Your task to perform on an android device: see tabs open on other devices in the chrome app Image 0: 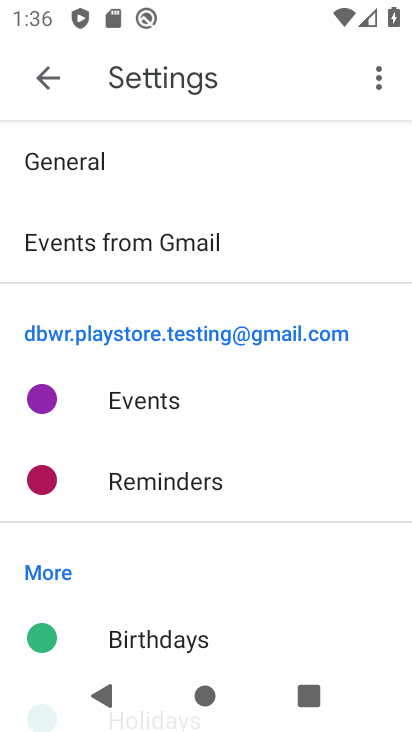
Step 0: press home button
Your task to perform on an android device: see tabs open on other devices in the chrome app Image 1: 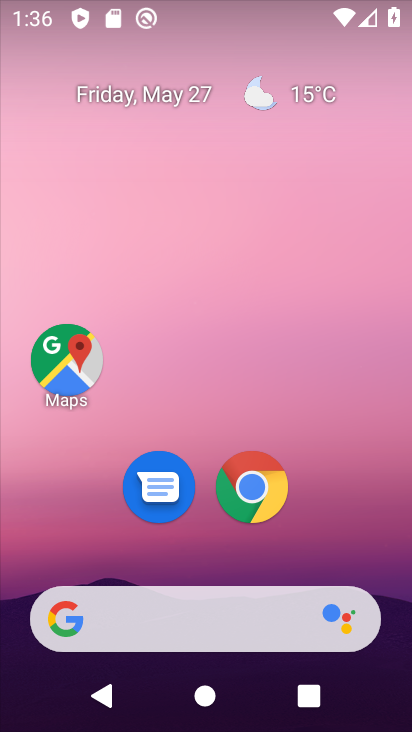
Step 1: click (261, 487)
Your task to perform on an android device: see tabs open on other devices in the chrome app Image 2: 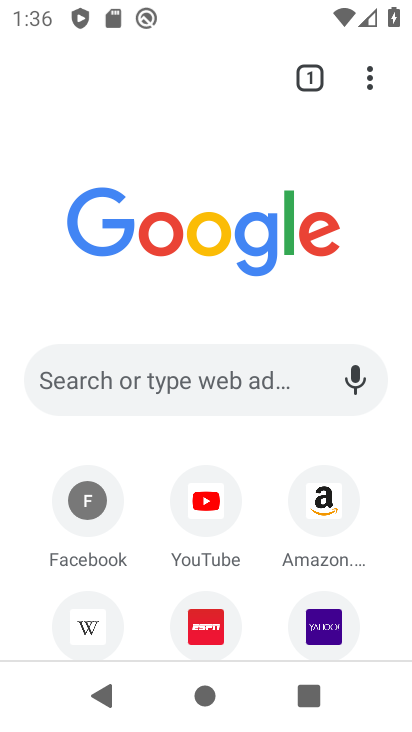
Step 2: task complete